Your task to perform on an android device: turn on sleep mode Image 0: 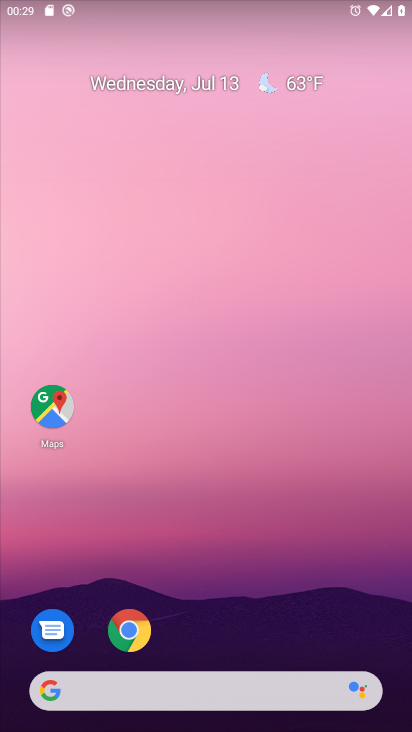
Step 0: drag from (189, 684) to (247, 282)
Your task to perform on an android device: turn on sleep mode Image 1: 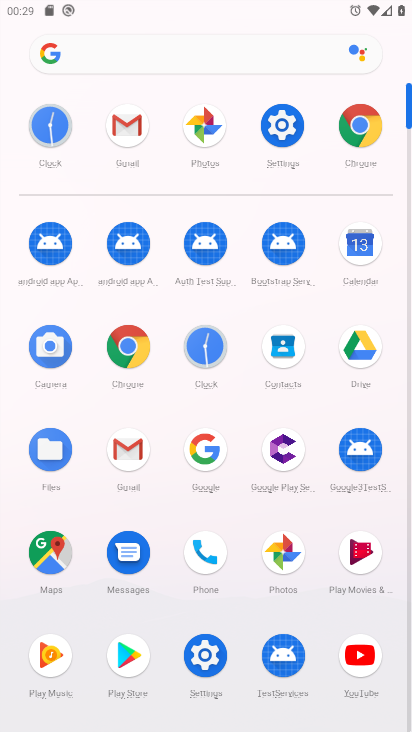
Step 1: click (285, 128)
Your task to perform on an android device: turn on sleep mode Image 2: 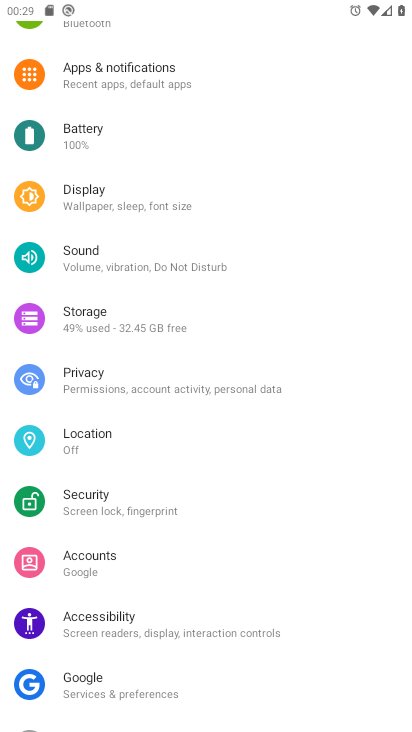
Step 2: click (101, 206)
Your task to perform on an android device: turn on sleep mode Image 3: 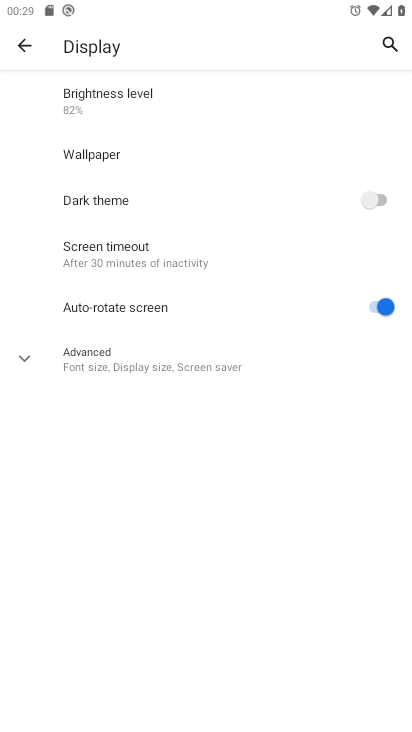
Step 3: click (99, 367)
Your task to perform on an android device: turn on sleep mode Image 4: 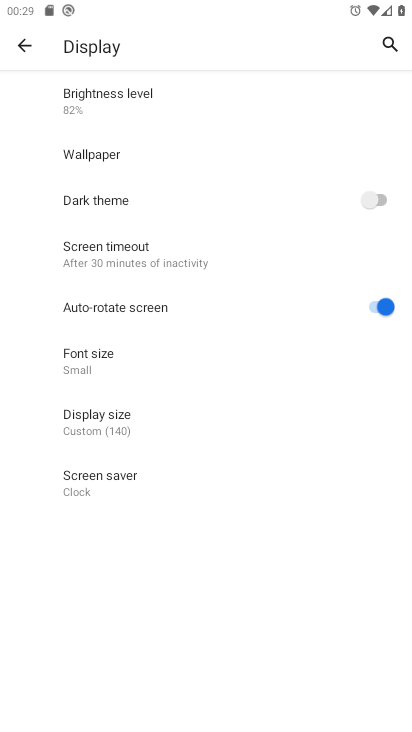
Step 4: task complete